Your task to perform on an android device: Show me popular videos on Youtube Image 0: 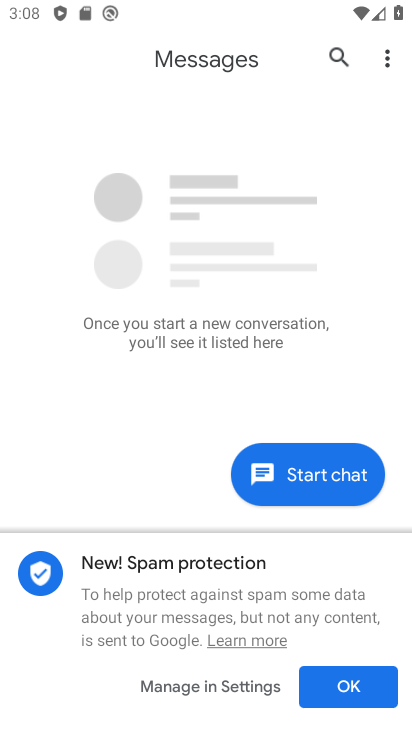
Step 0: press home button
Your task to perform on an android device: Show me popular videos on Youtube Image 1: 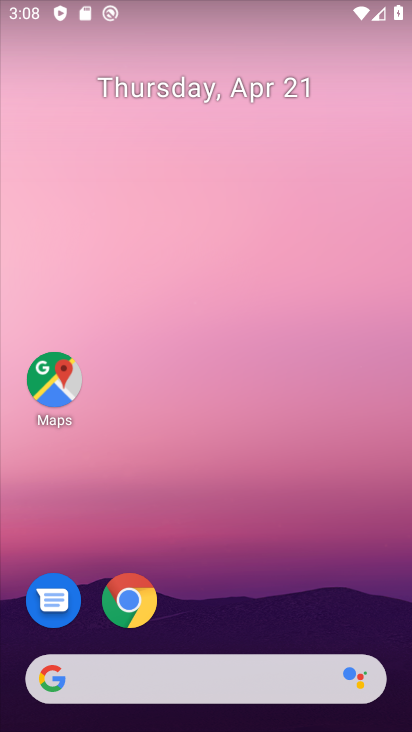
Step 1: drag from (318, 618) to (253, 228)
Your task to perform on an android device: Show me popular videos on Youtube Image 2: 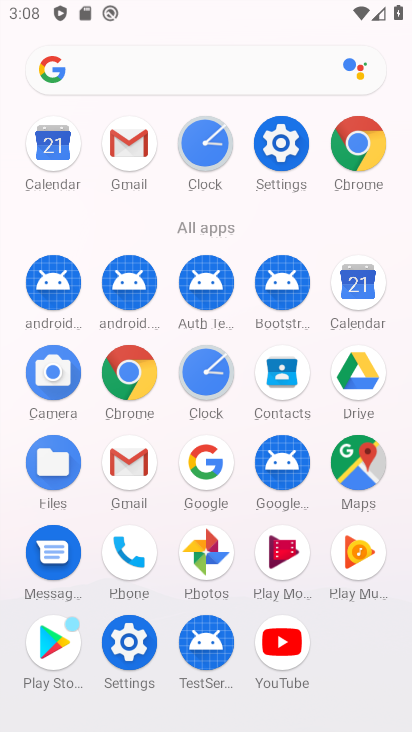
Step 2: click (291, 643)
Your task to perform on an android device: Show me popular videos on Youtube Image 3: 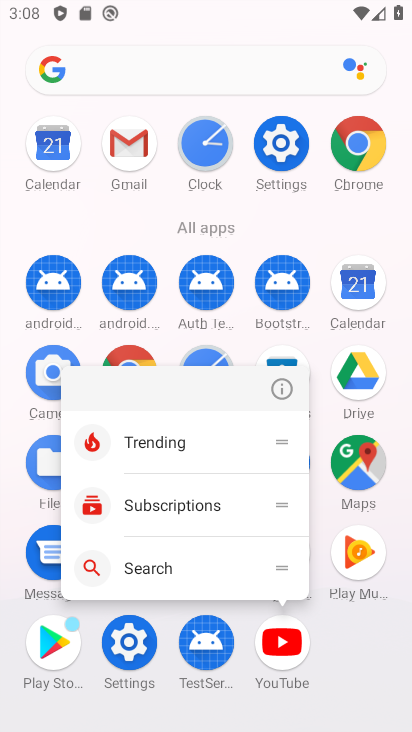
Step 3: click (291, 643)
Your task to perform on an android device: Show me popular videos on Youtube Image 4: 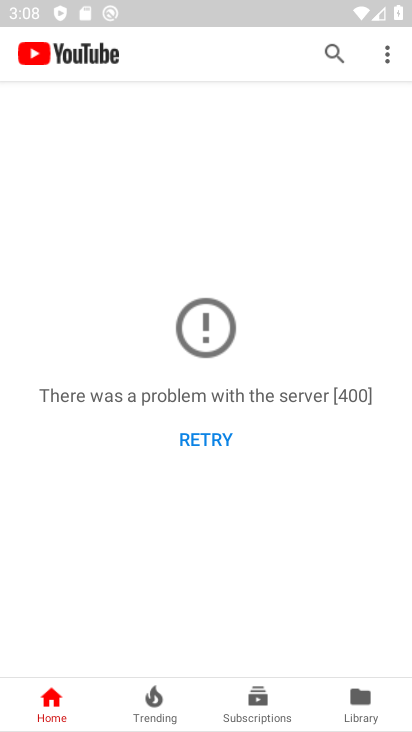
Step 4: click (155, 690)
Your task to perform on an android device: Show me popular videos on Youtube Image 5: 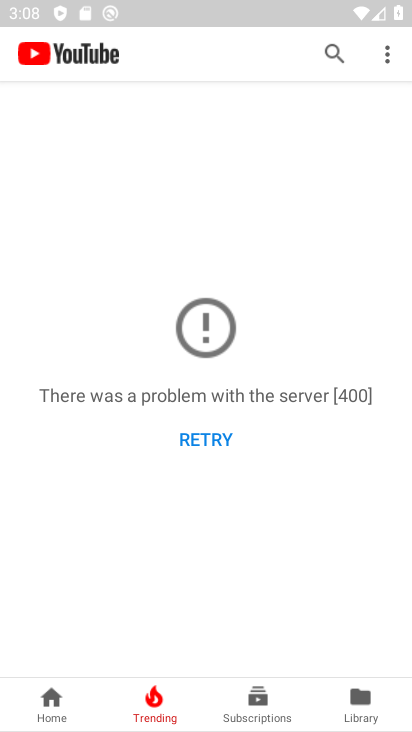
Step 5: click (148, 679)
Your task to perform on an android device: Show me popular videos on Youtube Image 6: 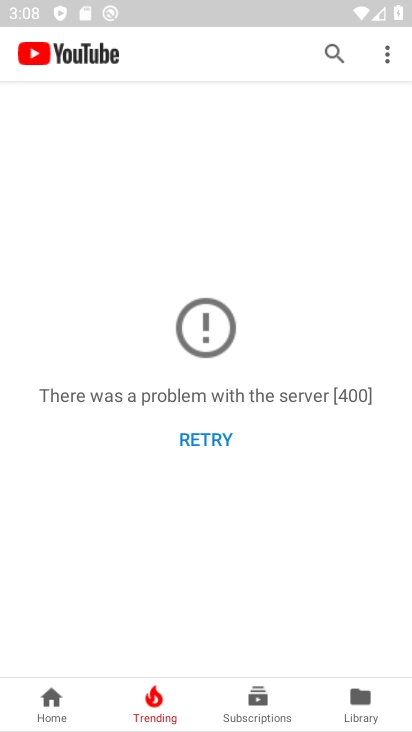
Step 6: click (191, 440)
Your task to perform on an android device: Show me popular videos on Youtube Image 7: 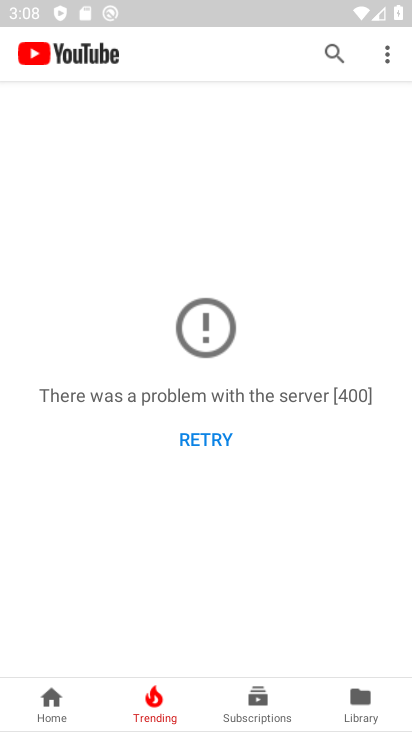
Step 7: click (191, 440)
Your task to perform on an android device: Show me popular videos on Youtube Image 8: 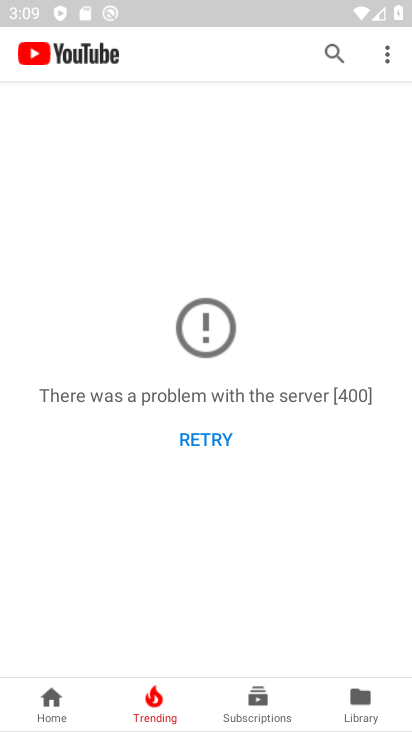
Step 8: click (191, 440)
Your task to perform on an android device: Show me popular videos on Youtube Image 9: 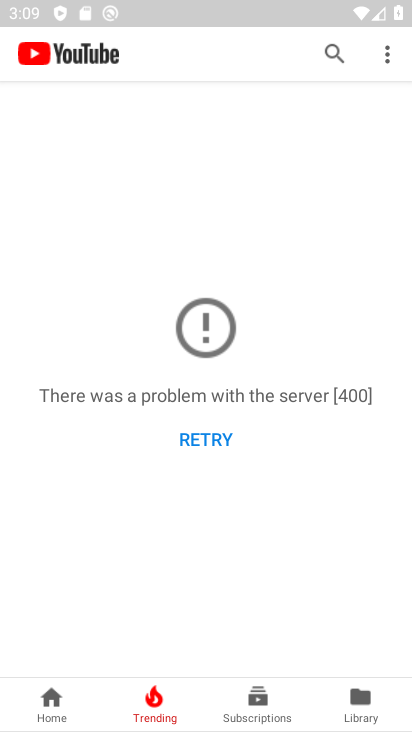
Step 9: click (215, 441)
Your task to perform on an android device: Show me popular videos on Youtube Image 10: 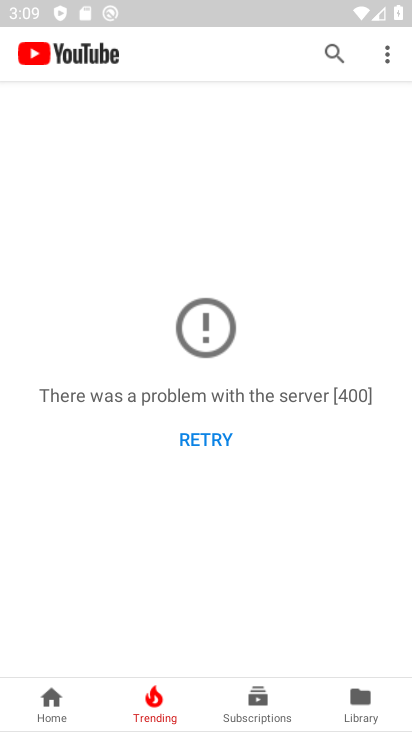
Step 10: press home button
Your task to perform on an android device: Show me popular videos on Youtube Image 11: 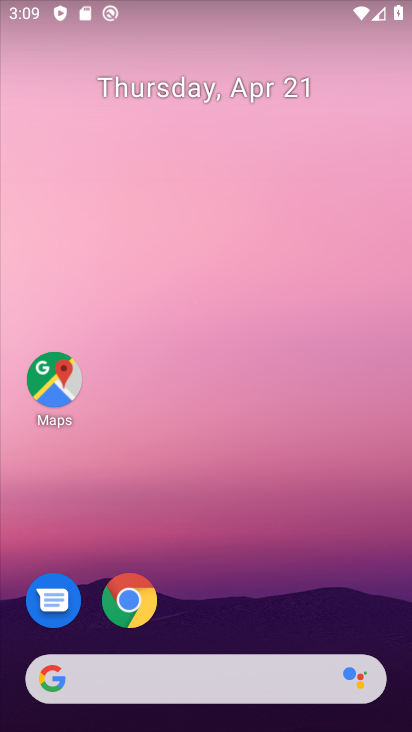
Step 11: drag from (247, 611) to (235, 51)
Your task to perform on an android device: Show me popular videos on Youtube Image 12: 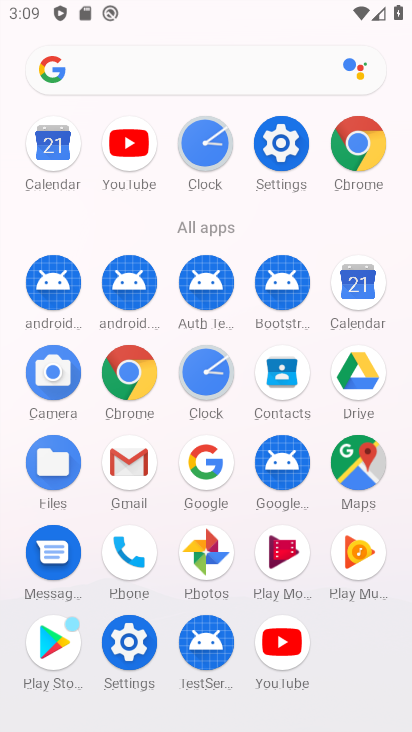
Step 12: click (212, 544)
Your task to perform on an android device: Show me popular videos on Youtube Image 13: 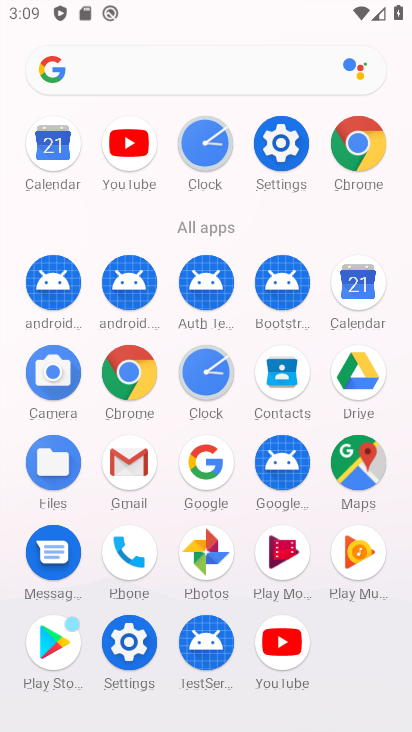
Step 13: click (277, 644)
Your task to perform on an android device: Show me popular videos on Youtube Image 14: 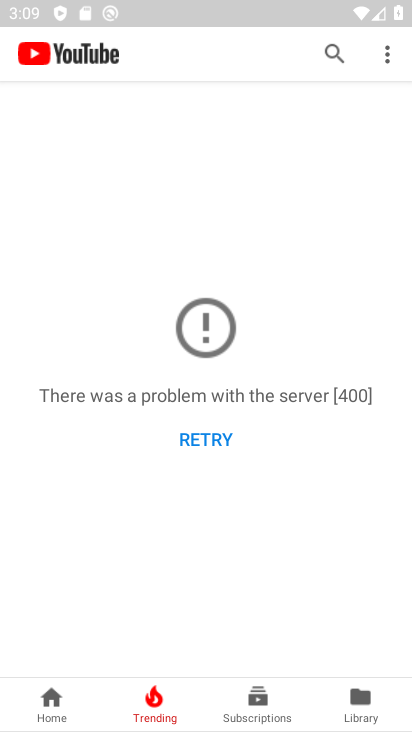
Step 14: click (179, 447)
Your task to perform on an android device: Show me popular videos on Youtube Image 15: 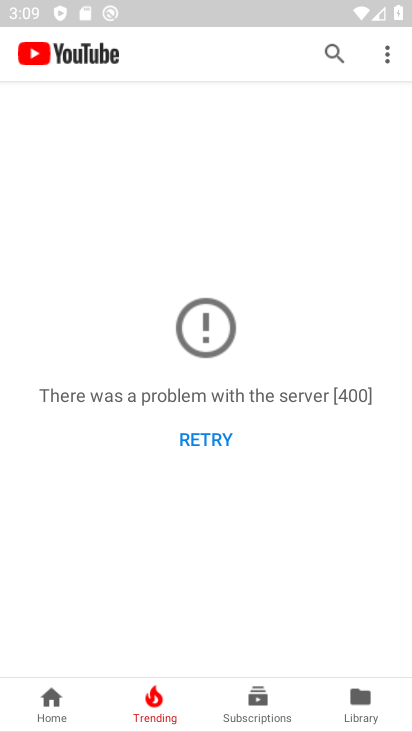
Step 15: click (181, 446)
Your task to perform on an android device: Show me popular videos on Youtube Image 16: 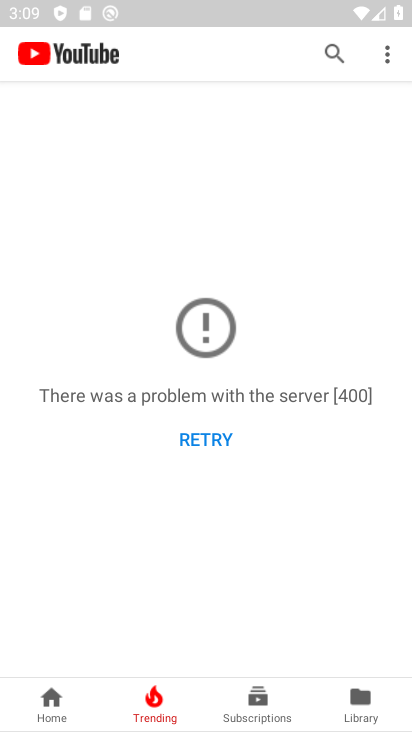
Step 16: click (180, 445)
Your task to perform on an android device: Show me popular videos on Youtube Image 17: 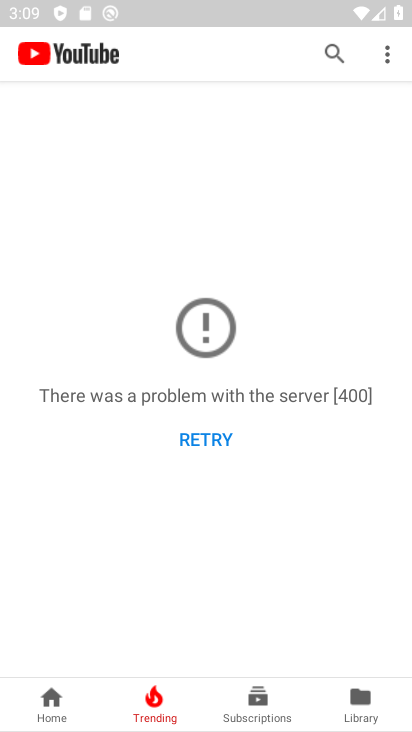
Step 17: task complete